Your task to perform on an android device: Search for seafood restaurants on Google Maps Image 0: 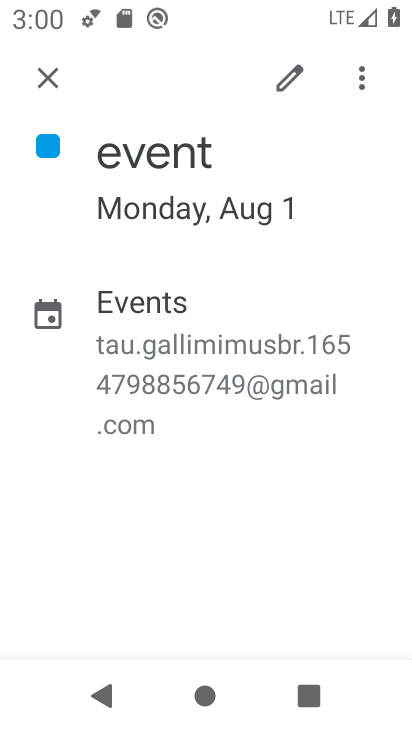
Step 0: press home button
Your task to perform on an android device: Search for seafood restaurants on Google Maps Image 1: 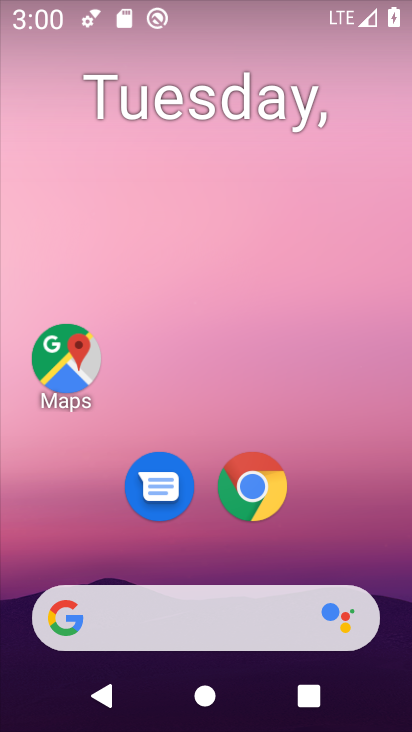
Step 1: drag from (363, 492) to (367, 104)
Your task to perform on an android device: Search for seafood restaurants on Google Maps Image 2: 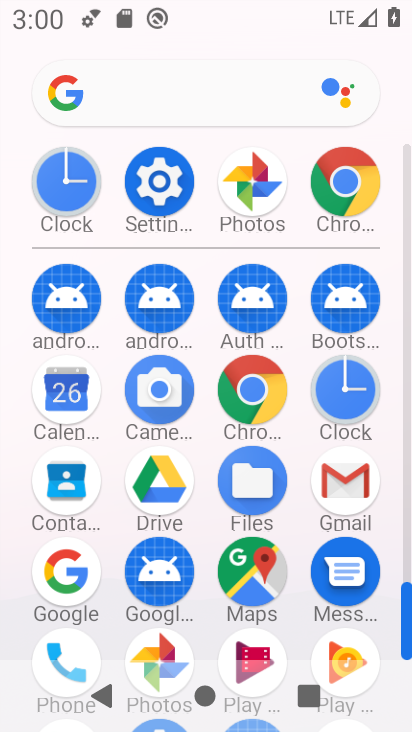
Step 2: drag from (397, 463) to (400, 237)
Your task to perform on an android device: Search for seafood restaurants on Google Maps Image 3: 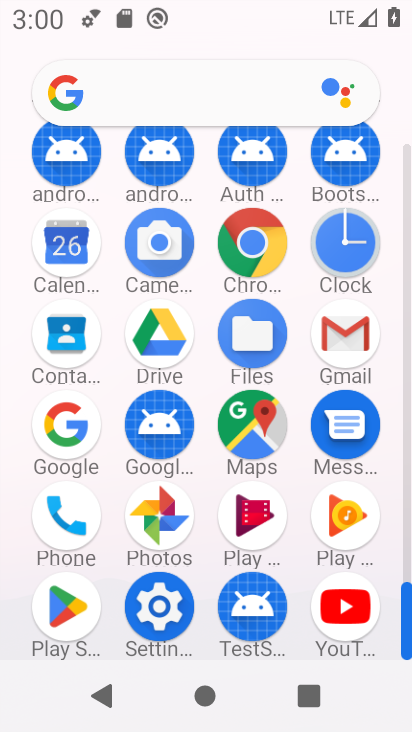
Step 3: click (247, 419)
Your task to perform on an android device: Search for seafood restaurants on Google Maps Image 4: 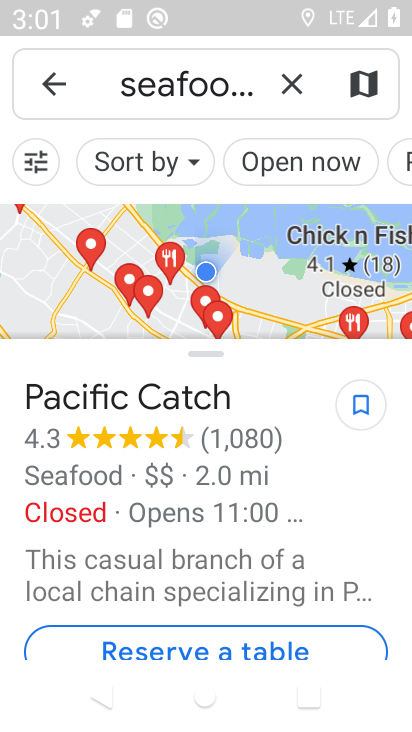
Step 4: task complete